Your task to perform on an android device: Empty the shopping cart on amazon.com. Search for "logitech g pro" on amazon.com, select the first entry, add it to the cart, then select checkout. Image 0: 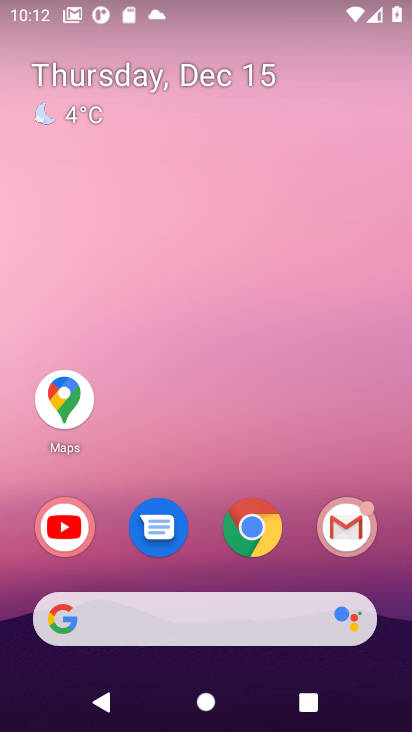
Step 0: click (252, 541)
Your task to perform on an android device: Empty the shopping cart on amazon.com. Search for "logitech g pro" on amazon.com, select the first entry, add it to the cart, then select checkout. Image 1: 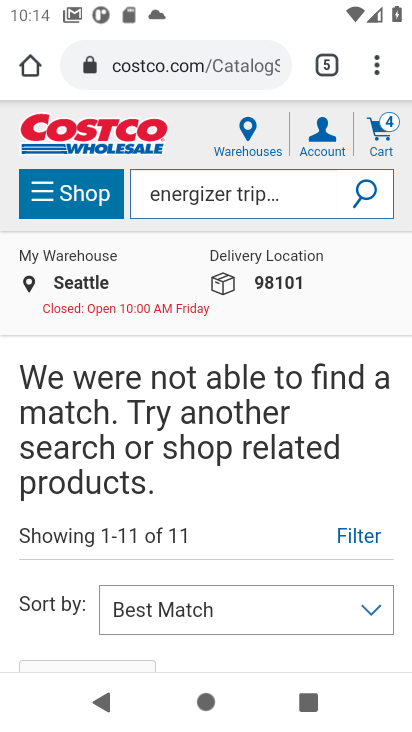
Step 1: task complete